Your task to perform on an android device: When is my next meeting? Image 0: 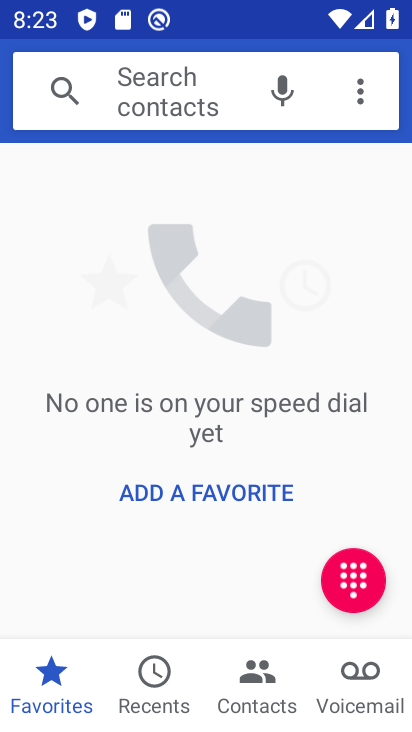
Step 0: press home button
Your task to perform on an android device: When is my next meeting? Image 1: 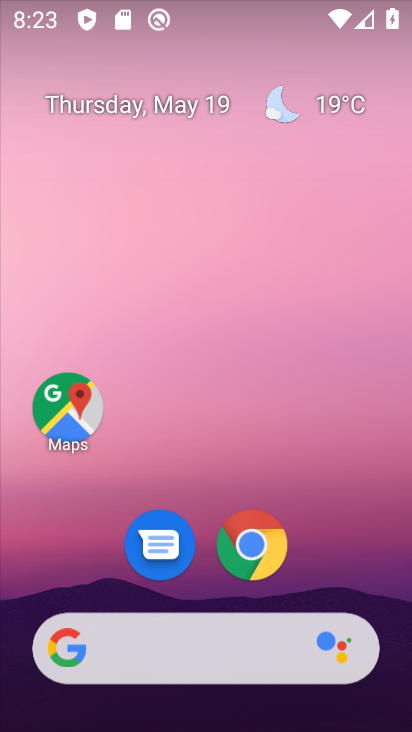
Step 1: drag from (363, 567) to (252, 17)
Your task to perform on an android device: When is my next meeting? Image 2: 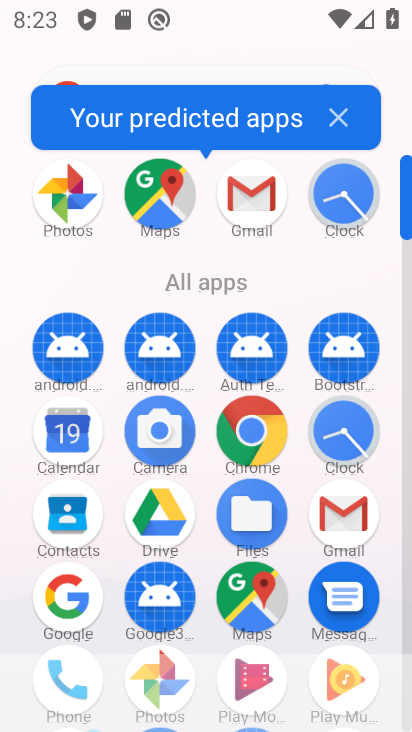
Step 2: click (77, 436)
Your task to perform on an android device: When is my next meeting? Image 3: 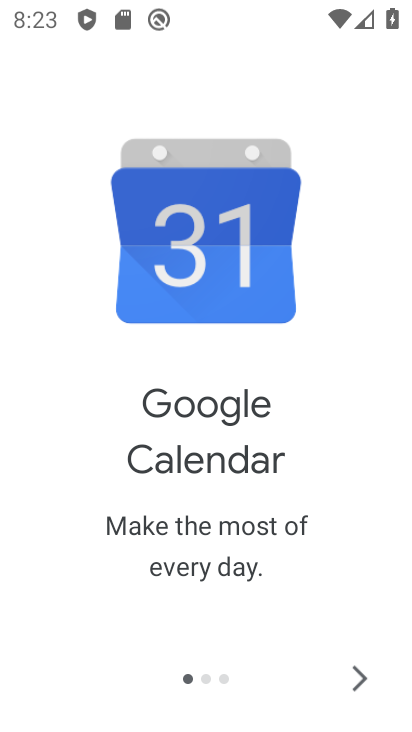
Step 3: click (363, 679)
Your task to perform on an android device: When is my next meeting? Image 4: 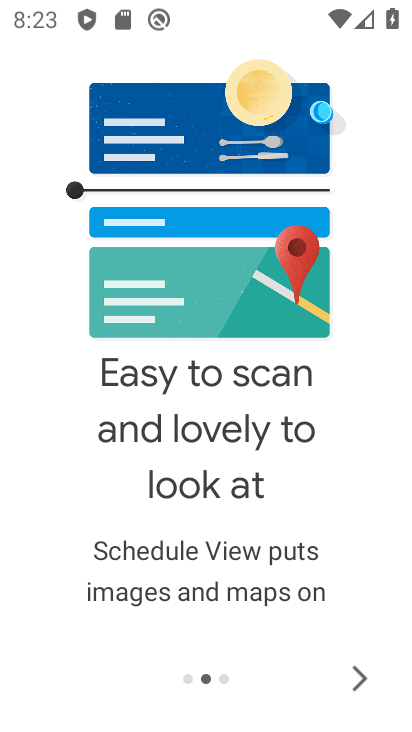
Step 4: click (363, 679)
Your task to perform on an android device: When is my next meeting? Image 5: 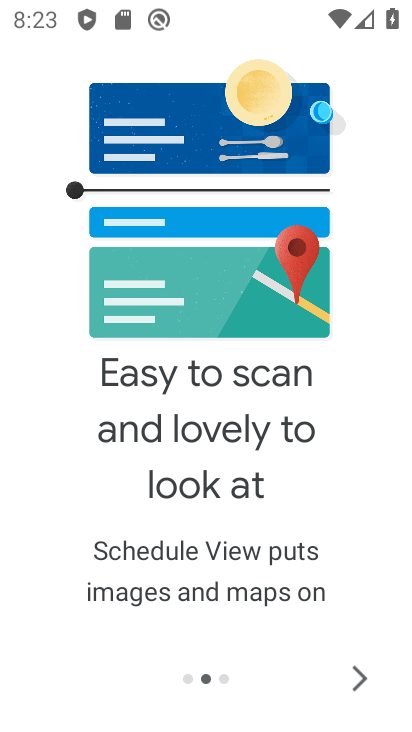
Step 5: click (363, 679)
Your task to perform on an android device: When is my next meeting? Image 6: 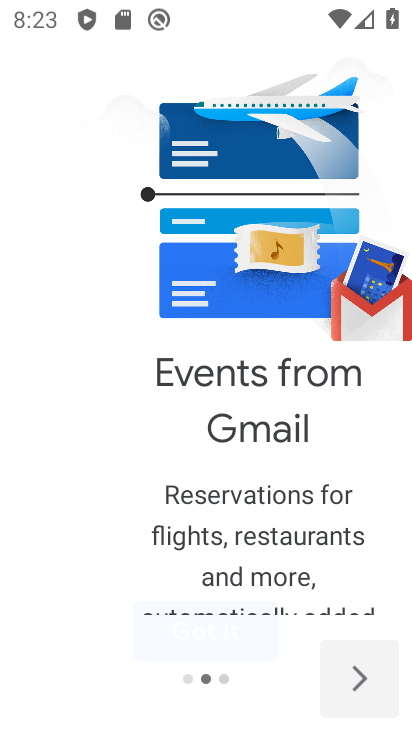
Step 6: click (363, 679)
Your task to perform on an android device: When is my next meeting? Image 7: 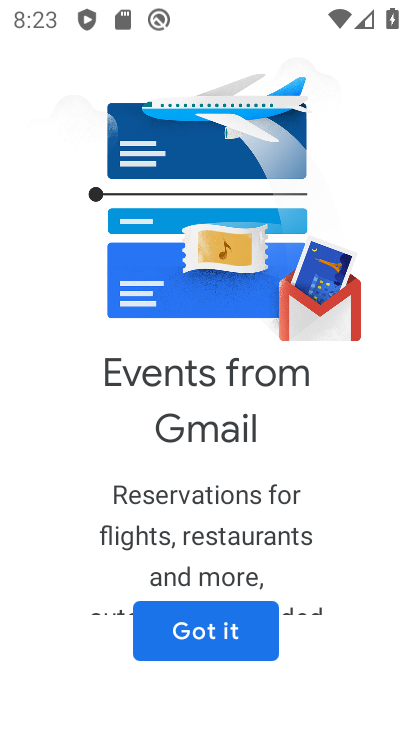
Step 7: click (144, 610)
Your task to perform on an android device: When is my next meeting? Image 8: 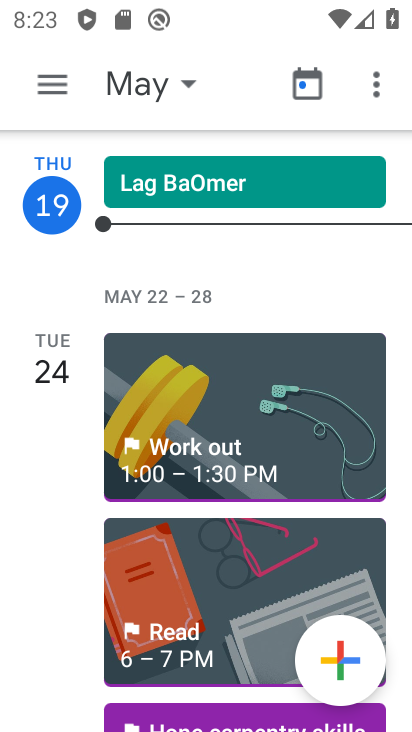
Step 8: task complete